Your task to perform on an android device: toggle translation in the chrome app Image 0: 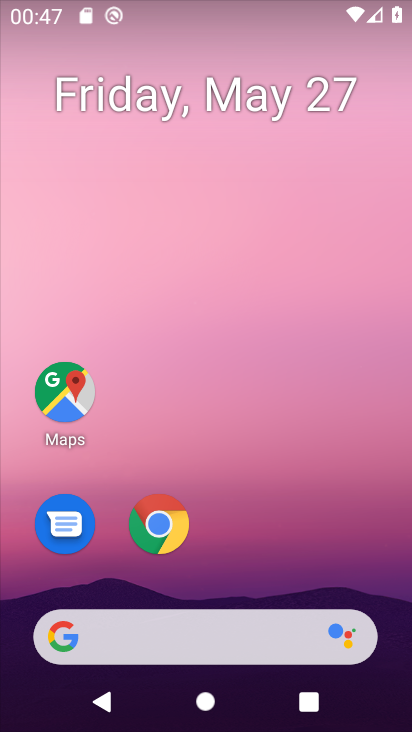
Step 0: click (173, 531)
Your task to perform on an android device: toggle translation in the chrome app Image 1: 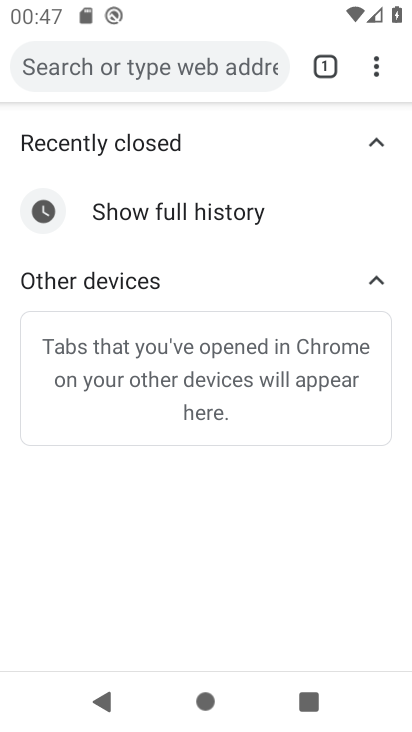
Step 1: click (372, 65)
Your task to perform on an android device: toggle translation in the chrome app Image 2: 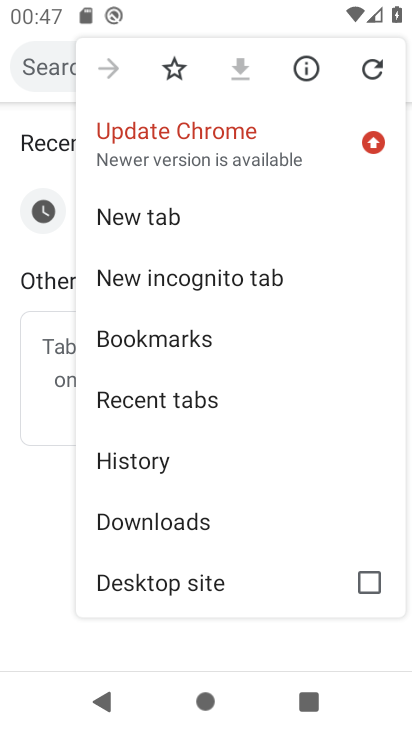
Step 2: drag from (264, 472) to (279, 186)
Your task to perform on an android device: toggle translation in the chrome app Image 3: 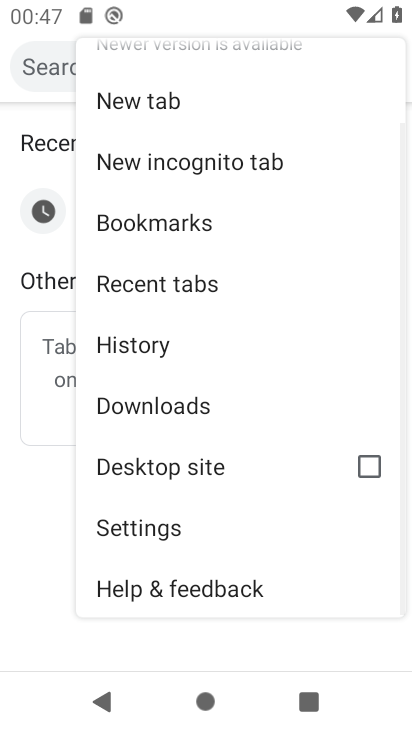
Step 3: click (174, 530)
Your task to perform on an android device: toggle translation in the chrome app Image 4: 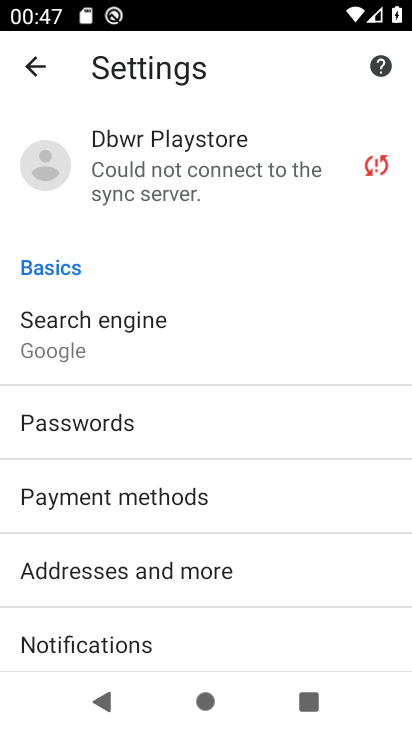
Step 4: drag from (242, 520) to (291, 71)
Your task to perform on an android device: toggle translation in the chrome app Image 5: 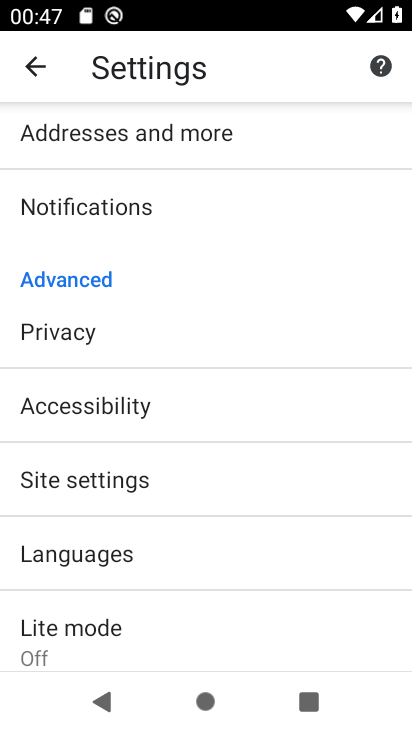
Step 5: click (184, 560)
Your task to perform on an android device: toggle translation in the chrome app Image 6: 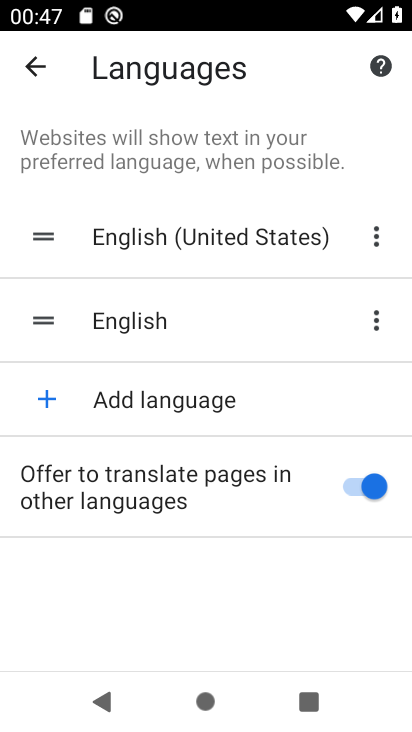
Step 6: click (355, 472)
Your task to perform on an android device: toggle translation in the chrome app Image 7: 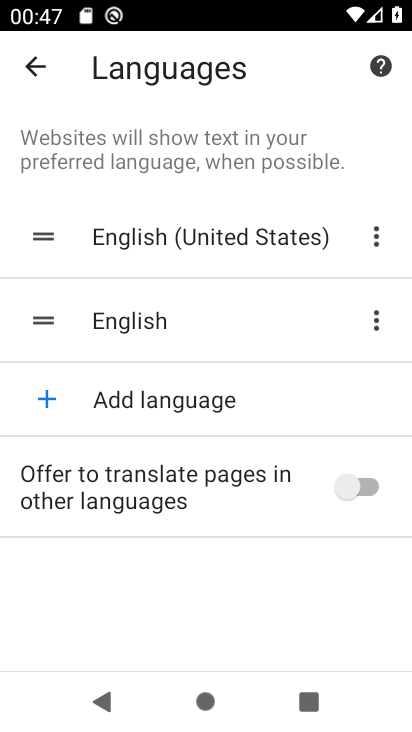
Step 7: task complete